Your task to perform on an android device: Go to eBay Image 0: 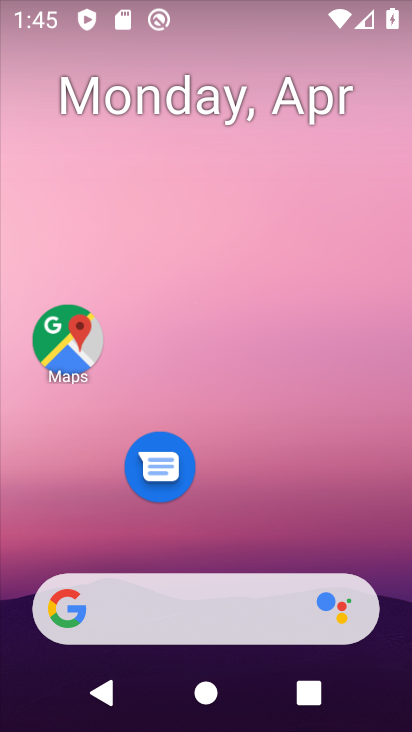
Step 0: drag from (247, 533) to (173, 16)
Your task to perform on an android device: Go to eBay Image 1: 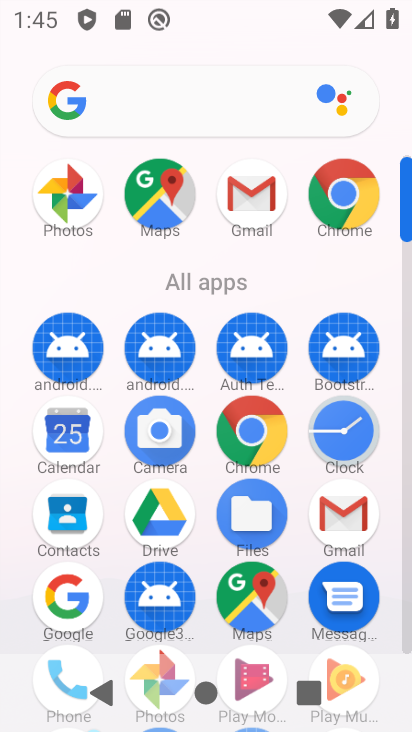
Step 1: click (352, 205)
Your task to perform on an android device: Go to eBay Image 2: 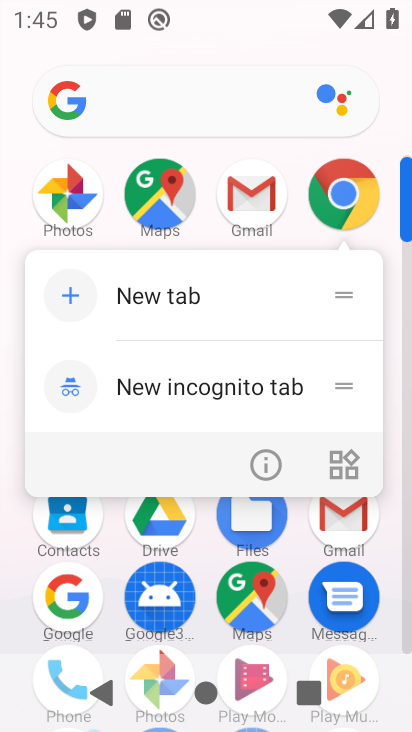
Step 2: click (328, 195)
Your task to perform on an android device: Go to eBay Image 3: 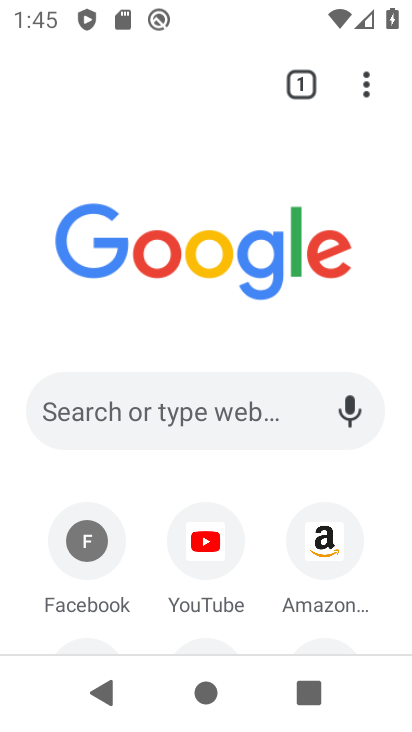
Step 3: click (191, 430)
Your task to perform on an android device: Go to eBay Image 4: 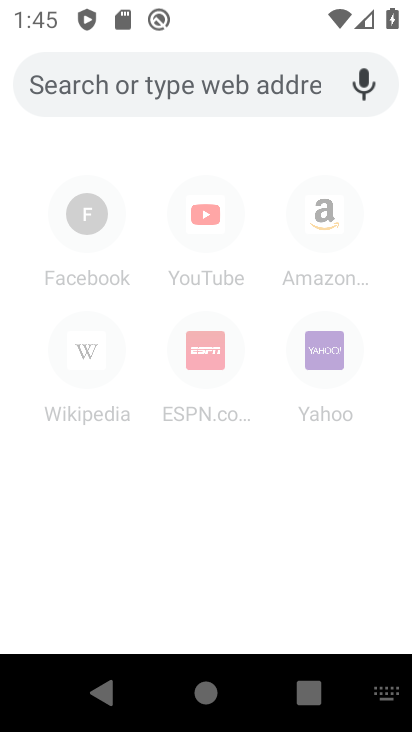
Step 4: type "ebay"
Your task to perform on an android device: Go to eBay Image 5: 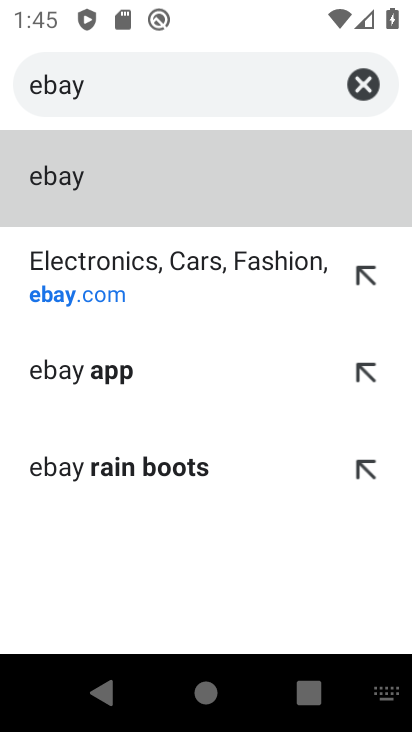
Step 5: click (31, 182)
Your task to perform on an android device: Go to eBay Image 6: 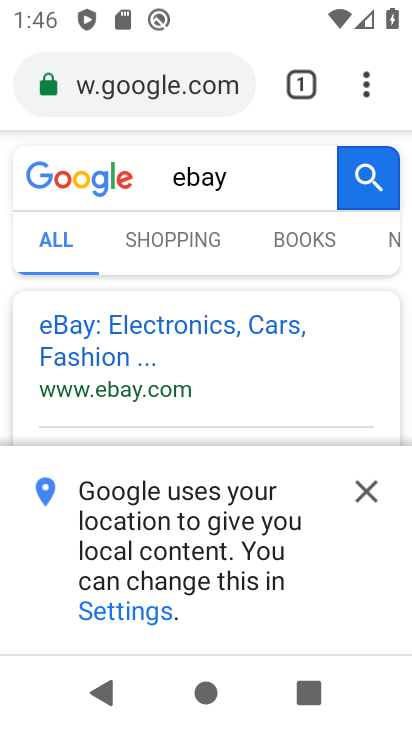
Step 6: click (53, 320)
Your task to perform on an android device: Go to eBay Image 7: 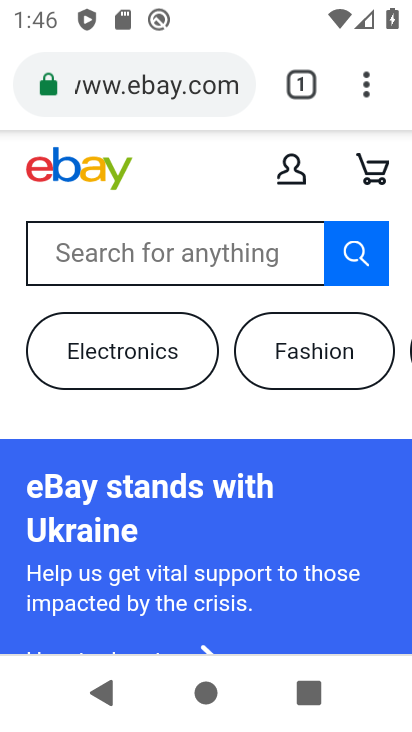
Step 7: task complete